Your task to perform on an android device: Is it going to rain this weekend? Image 0: 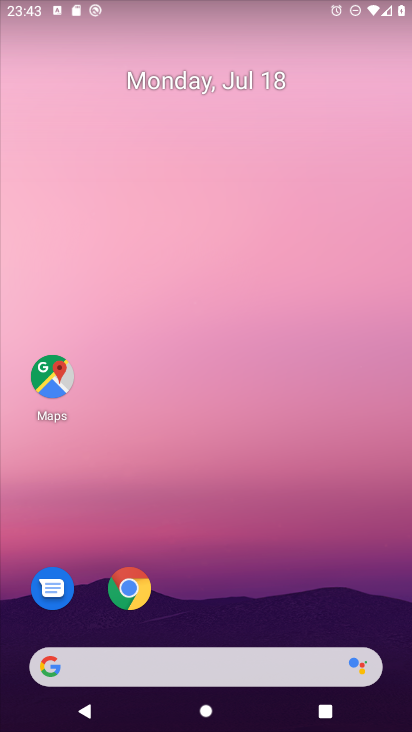
Step 0: drag from (8, 286) to (398, 287)
Your task to perform on an android device: Is it going to rain this weekend? Image 1: 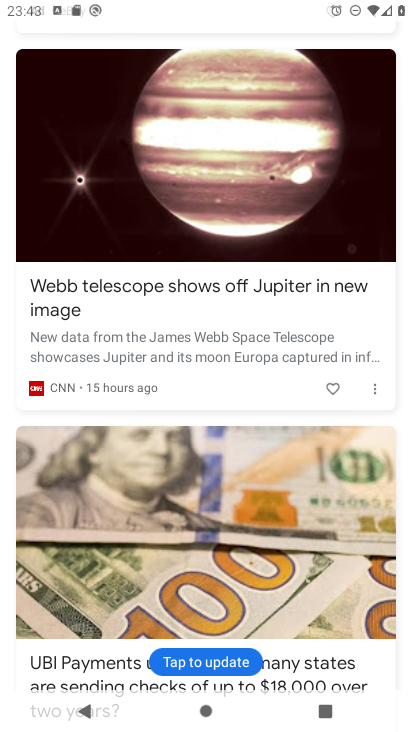
Step 1: drag from (189, 69) to (244, 451)
Your task to perform on an android device: Is it going to rain this weekend? Image 2: 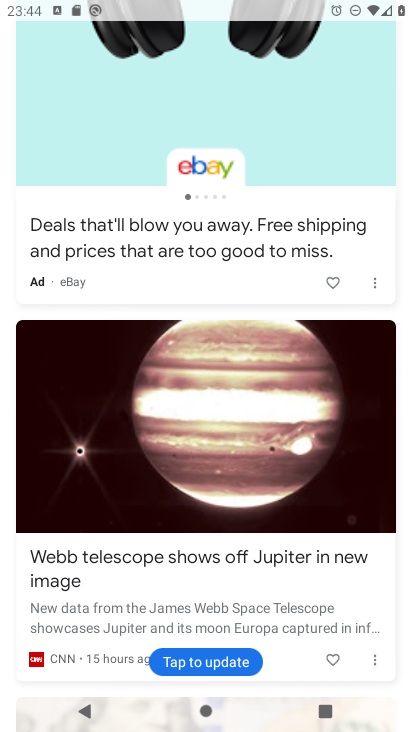
Step 2: drag from (215, 107) to (247, 523)
Your task to perform on an android device: Is it going to rain this weekend? Image 3: 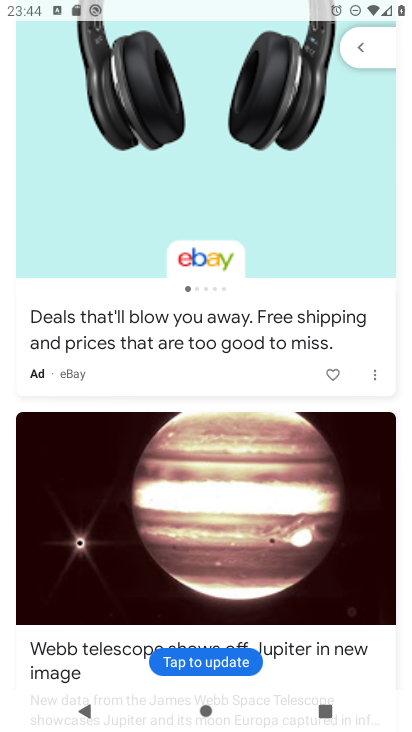
Step 3: drag from (288, 83) to (279, 565)
Your task to perform on an android device: Is it going to rain this weekend? Image 4: 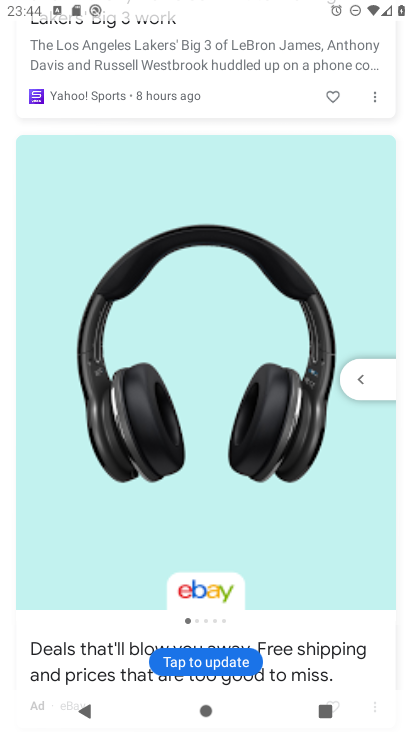
Step 4: drag from (282, 172) to (256, 627)
Your task to perform on an android device: Is it going to rain this weekend? Image 5: 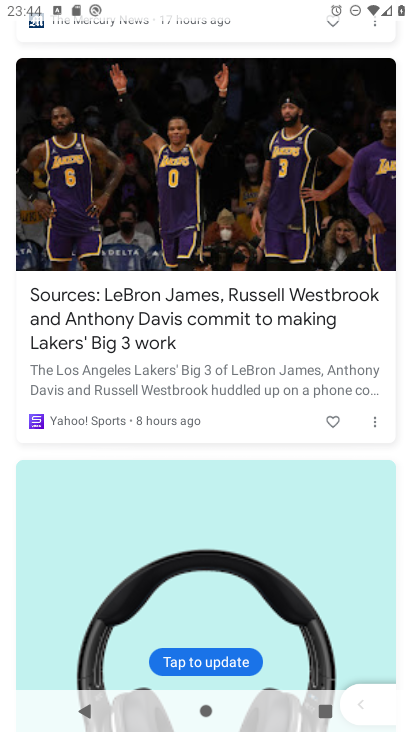
Step 5: click (200, 665)
Your task to perform on an android device: Is it going to rain this weekend? Image 6: 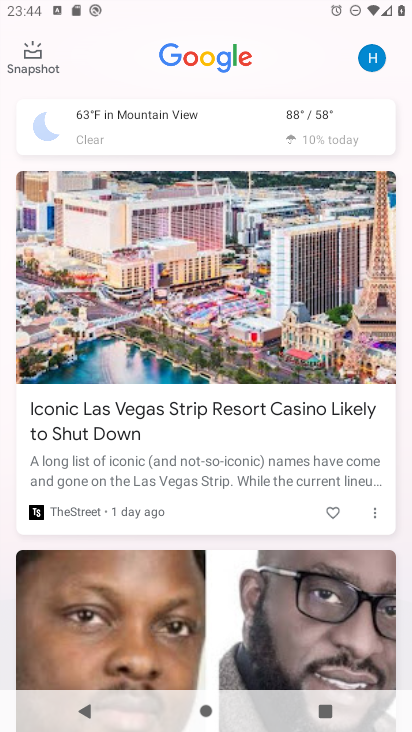
Step 6: click (304, 114)
Your task to perform on an android device: Is it going to rain this weekend? Image 7: 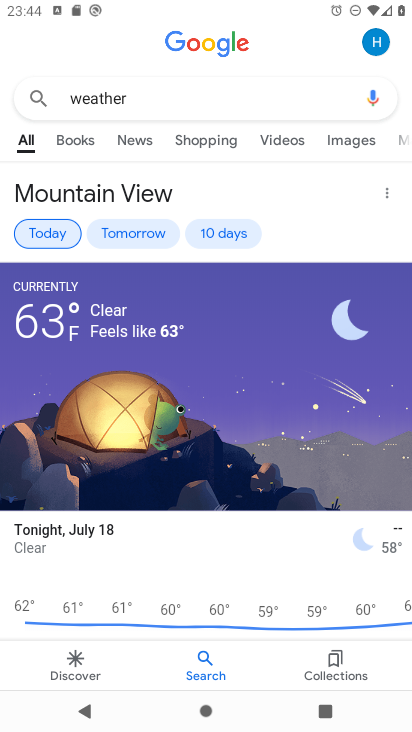
Step 7: click (214, 234)
Your task to perform on an android device: Is it going to rain this weekend? Image 8: 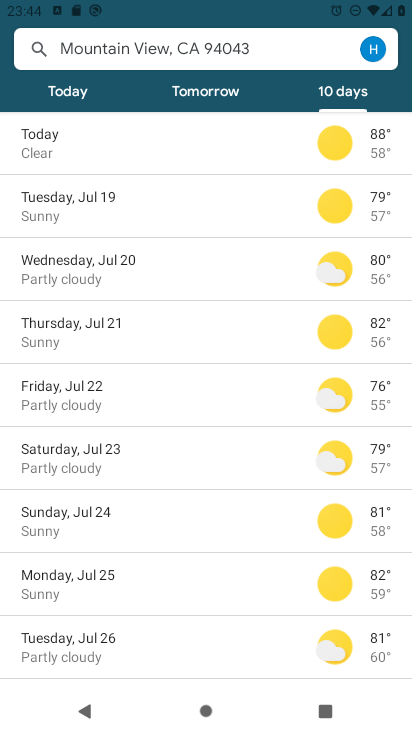
Step 8: task complete